Your task to perform on an android device: See recent photos Image 0: 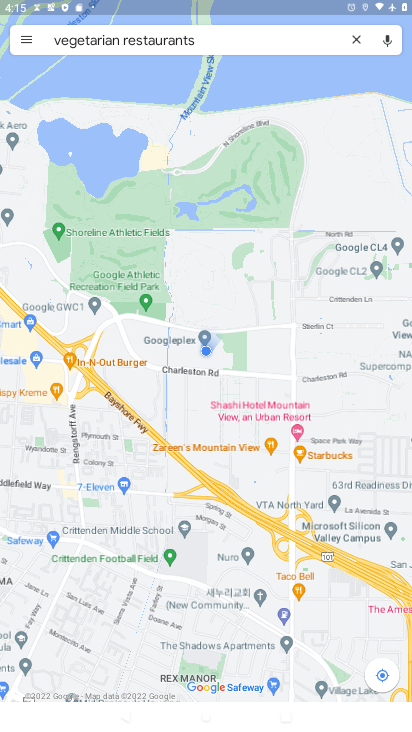
Step 0: press back button
Your task to perform on an android device: See recent photos Image 1: 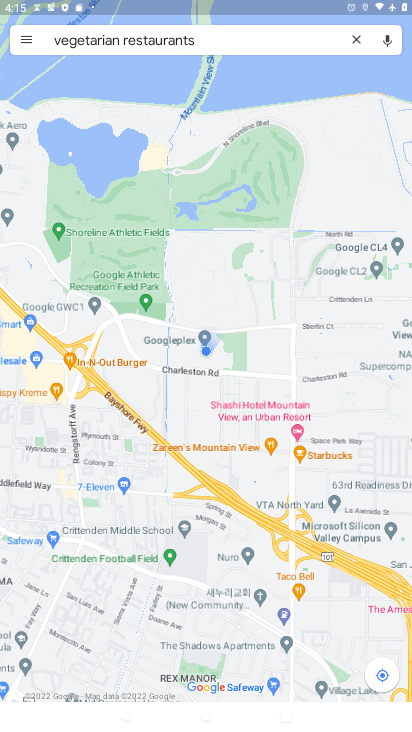
Step 1: drag from (193, 82) to (232, 35)
Your task to perform on an android device: See recent photos Image 2: 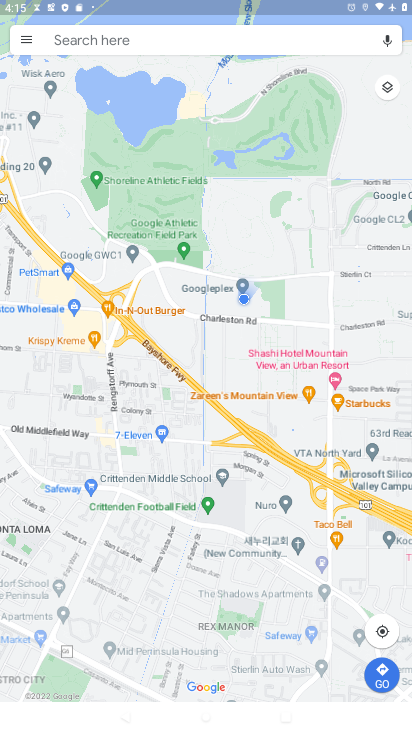
Step 2: drag from (202, 432) to (172, 212)
Your task to perform on an android device: See recent photos Image 3: 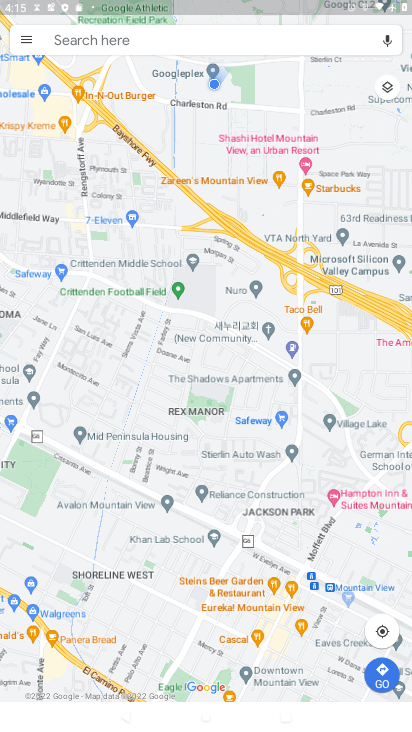
Step 3: press home button
Your task to perform on an android device: See recent photos Image 4: 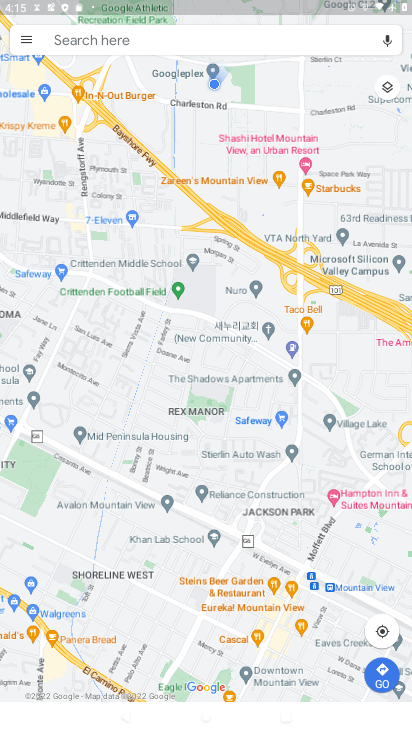
Step 4: press home button
Your task to perform on an android device: See recent photos Image 5: 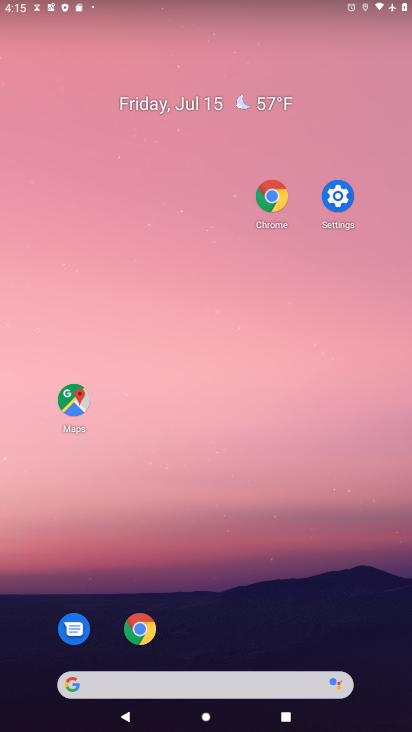
Step 5: drag from (184, 286) to (156, 104)
Your task to perform on an android device: See recent photos Image 6: 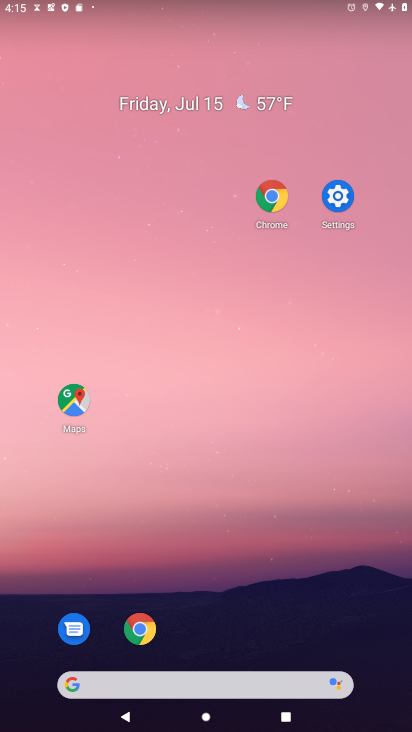
Step 6: drag from (235, 487) to (235, 102)
Your task to perform on an android device: See recent photos Image 7: 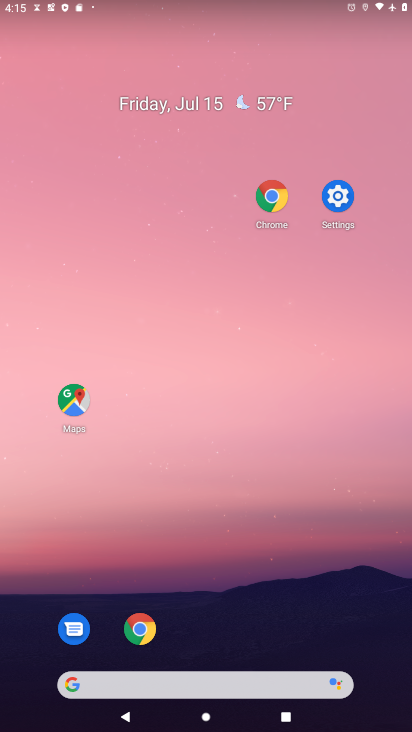
Step 7: drag from (229, 590) to (165, 189)
Your task to perform on an android device: See recent photos Image 8: 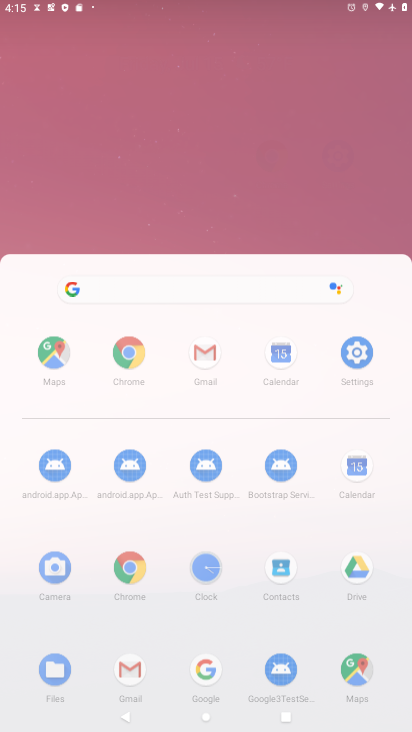
Step 8: drag from (201, 523) to (201, 142)
Your task to perform on an android device: See recent photos Image 9: 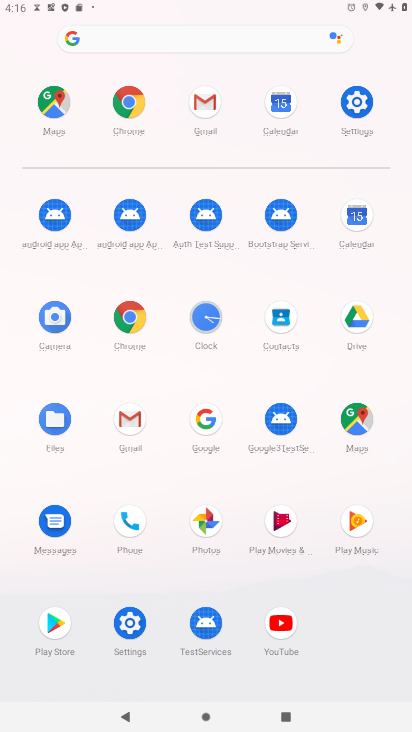
Step 9: click (205, 513)
Your task to perform on an android device: See recent photos Image 10: 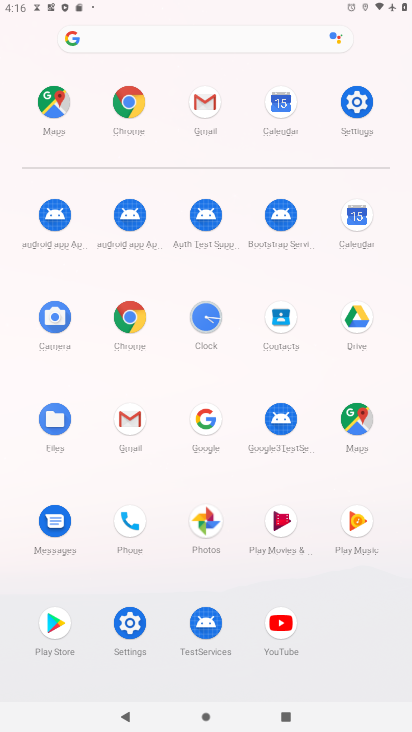
Step 10: click (205, 512)
Your task to perform on an android device: See recent photos Image 11: 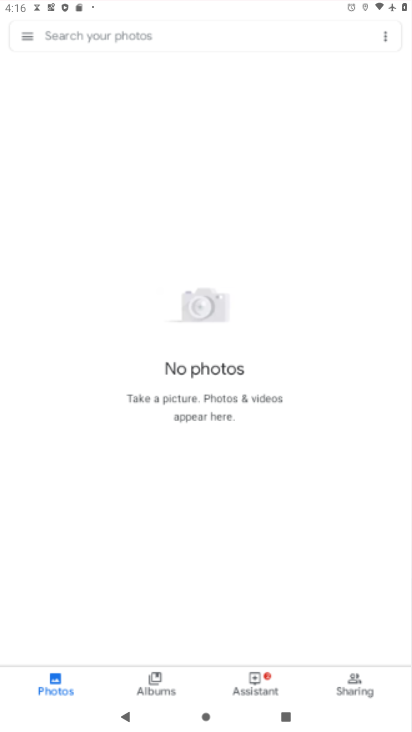
Step 11: click (205, 512)
Your task to perform on an android device: See recent photos Image 12: 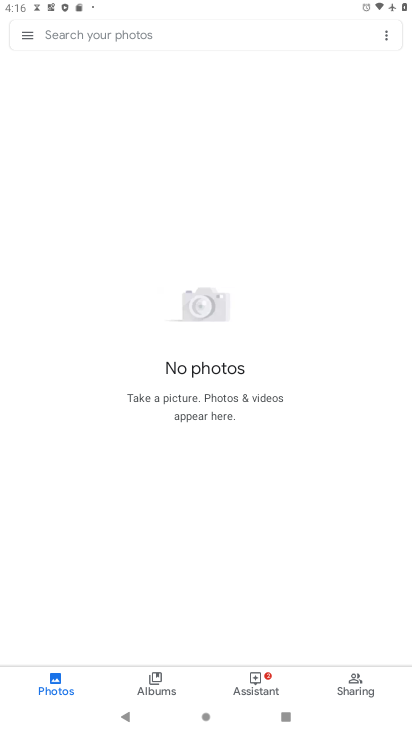
Step 12: task complete